Your task to perform on an android device: Open settings Image 0: 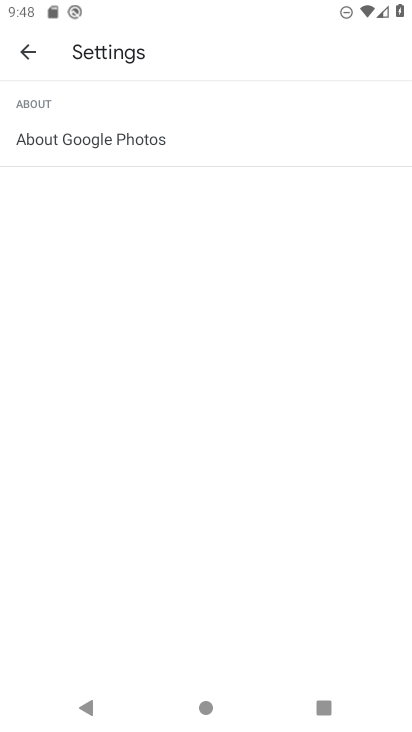
Step 0: press home button
Your task to perform on an android device: Open settings Image 1: 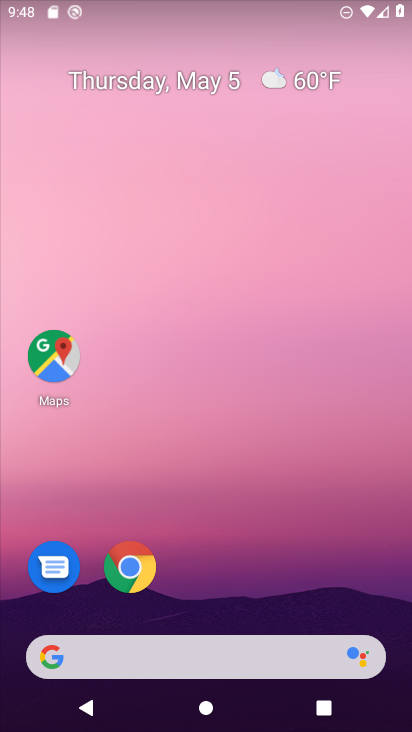
Step 1: drag from (217, 725) to (223, 238)
Your task to perform on an android device: Open settings Image 2: 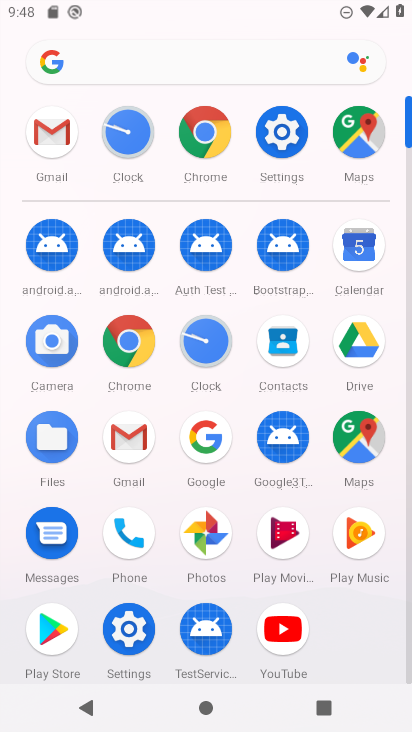
Step 2: click (278, 132)
Your task to perform on an android device: Open settings Image 3: 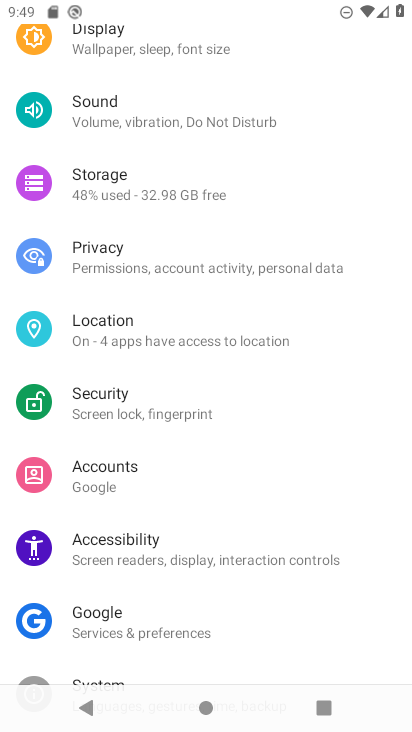
Step 3: task complete